Your task to perform on an android device: What's the news about the US dollar? Image 0: 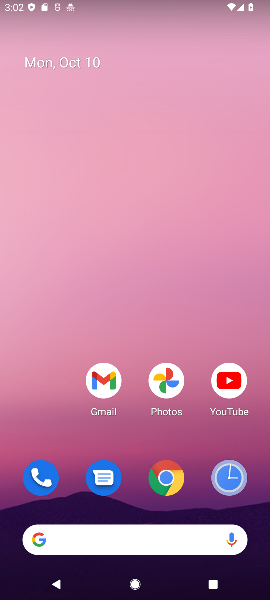
Step 0: click (164, 465)
Your task to perform on an android device: What's the news about the US dollar? Image 1: 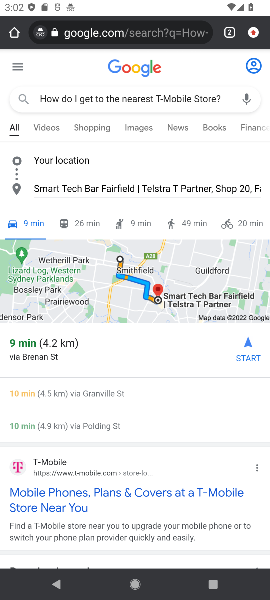
Step 1: click (121, 36)
Your task to perform on an android device: What's the news about the US dollar? Image 2: 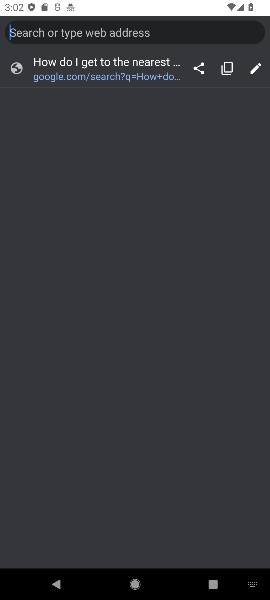
Step 2: type "news about the US dollar?"
Your task to perform on an android device: What's the news about the US dollar? Image 3: 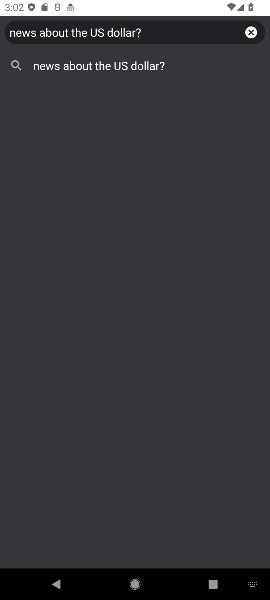
Step 3: click (161, 63)
Your task to perform on an android device: What's the news about the US dollar? Image 4: 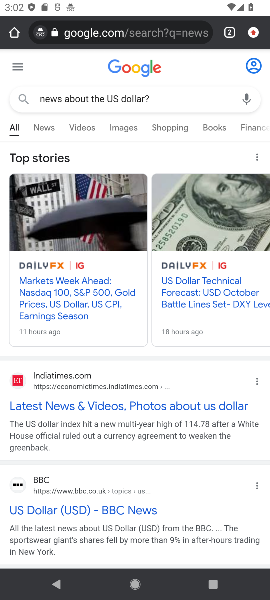
Step 4: task complete